Your task to perform on an android device: delete a single message in the gmail app Image 0: 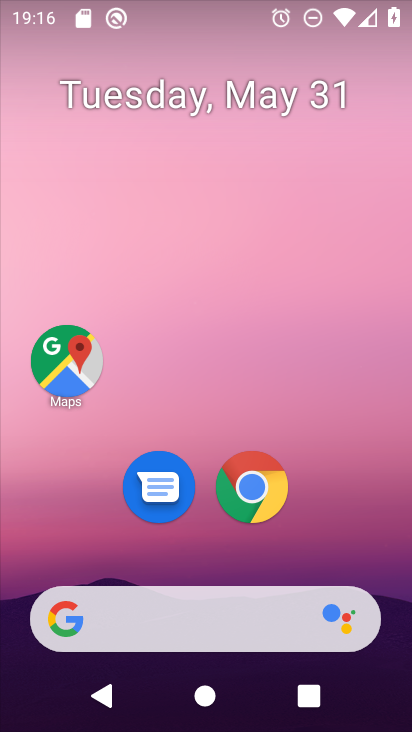
Step 0: drag from (334, 522) to (187, 50)
Your task to perform on an android device: delete a single message in the gmail app Image 1: 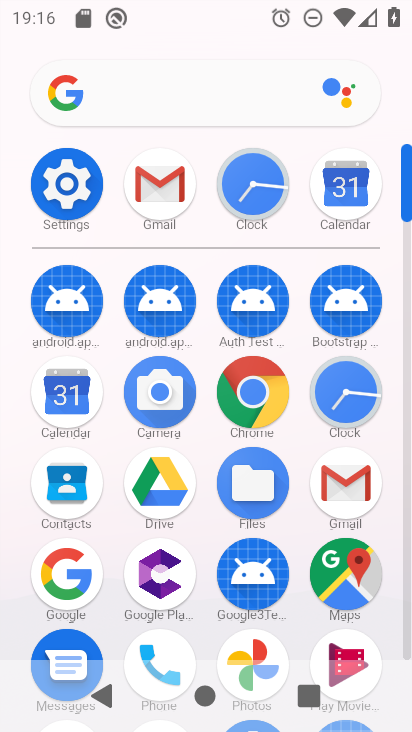
Step 1: click (152, 196)
Your task to perform on an android device: delete a single message in the gmail app Image 2: 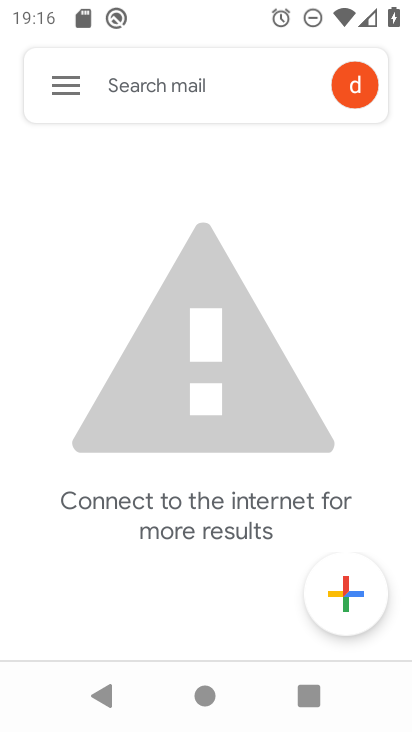
Step 2: click (72, 72)
Your task to perform on an android device: delete a single message in the gmail app Image 3: 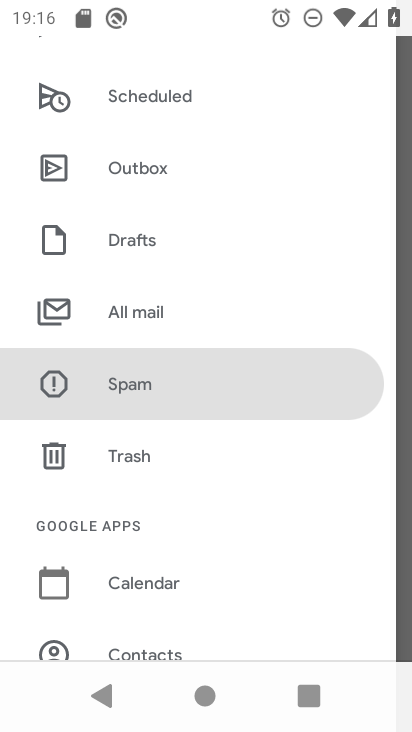
Step 3: click (130, 313)
Your task to perform on an android device: delete a single message in the gmail app Image 4: 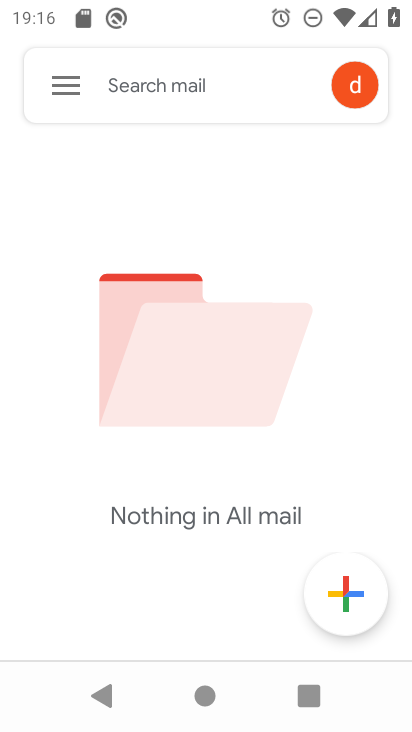
Step 4: task complete